Your task to perform on an android device: Toggle the flashlight Image 0: 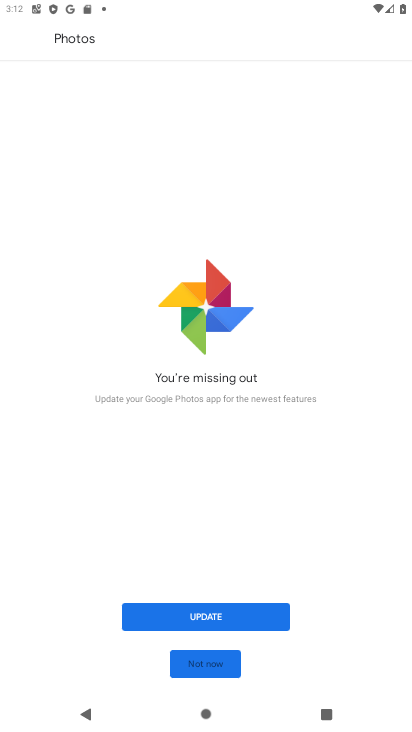
Step 0: press home button
Your task to perform on an android device: Toggle the flashlight Image 1: 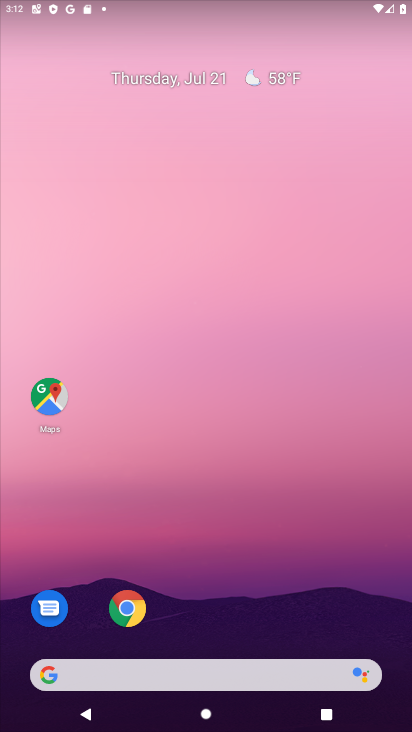
Step 1: drag from (283, 5) to (217, 526)
Your task to perform on an android device: Toggle the flashlight Image 2: 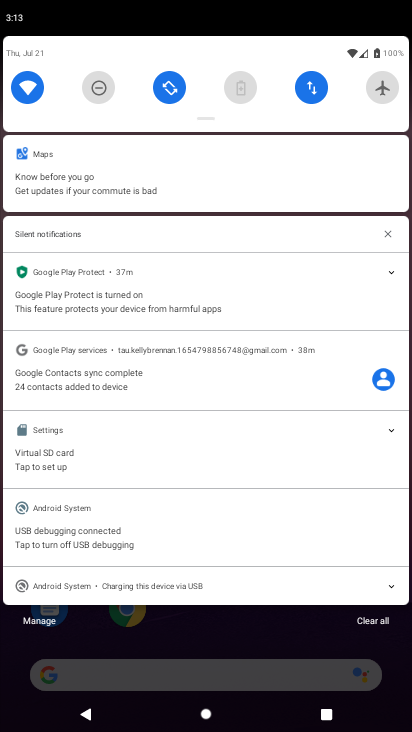
Step 2: click (202, 637)
Your task to perform on an android device: Toggle the flashlight Image 3: 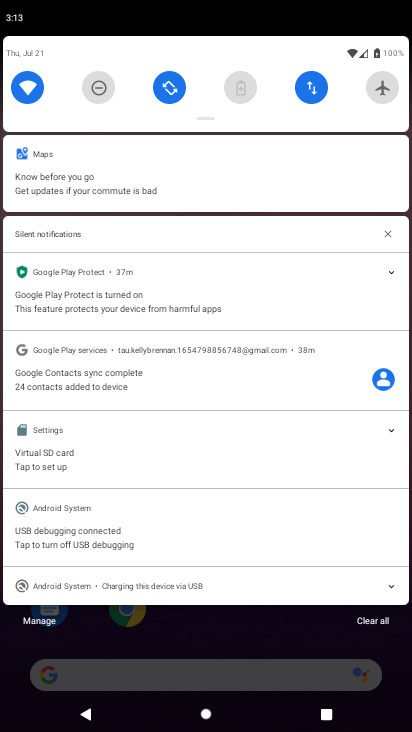
Step 3: click (357, 626)
Your task to perform on an android device: Toggle the flashlight Image 4: 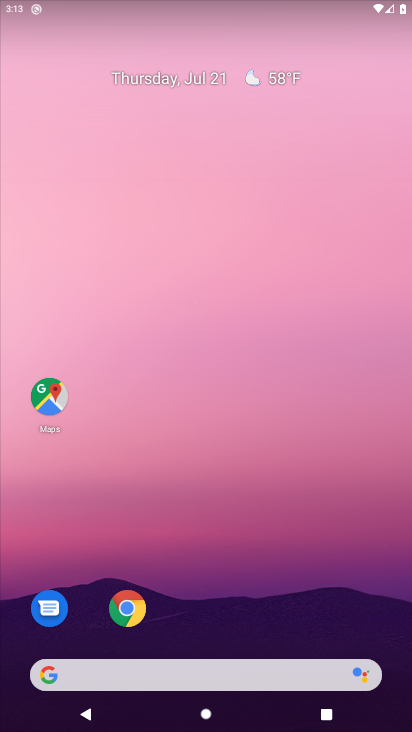
Step 4: drag from (206, 624) to (259, 20)
Your task to perform on an android device: Toggle the flashlight Image 5: 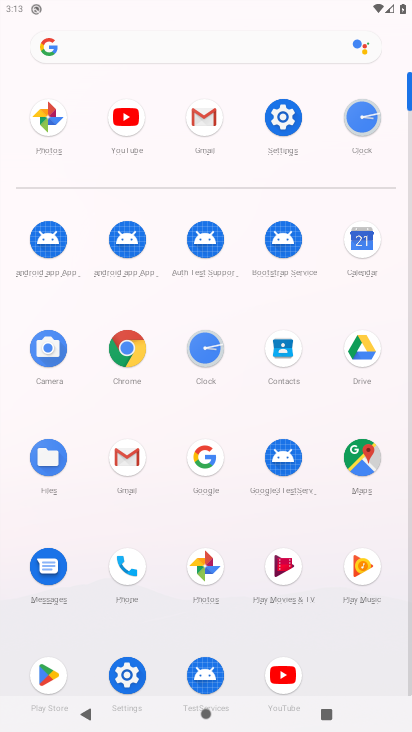
Step 5: click (281, 114)
Your task to perform on an android device: Toggle the flashlight Image 6: 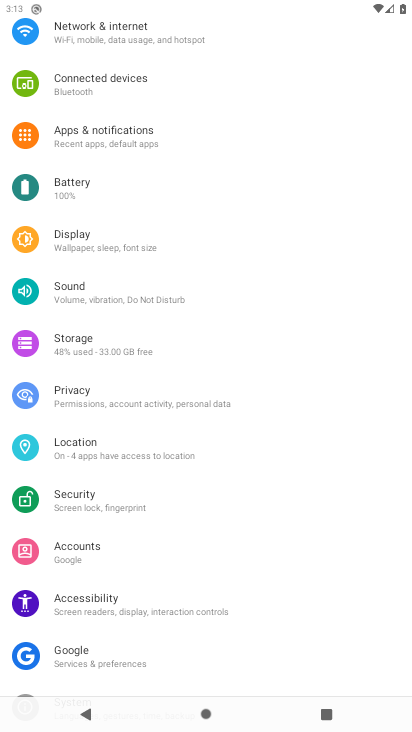
Step 6: drag from (168, 61) to (160, 599)
Your task to perform on an android device: Toggle the flashlight Image 7: 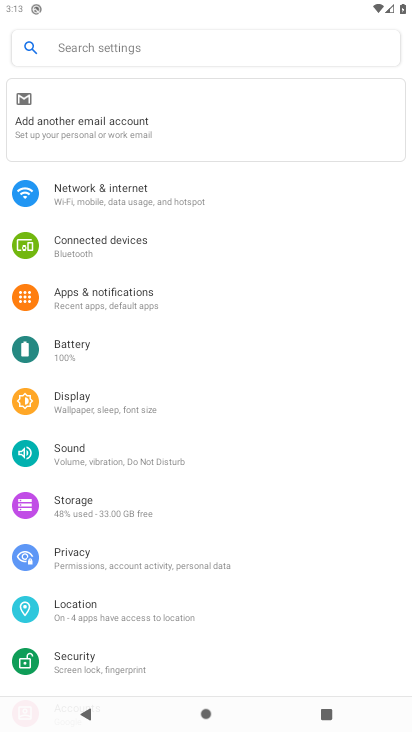
Step 7: click (135, 37)
Your task to perform on an android device: Toggle the flashlight Image 8: 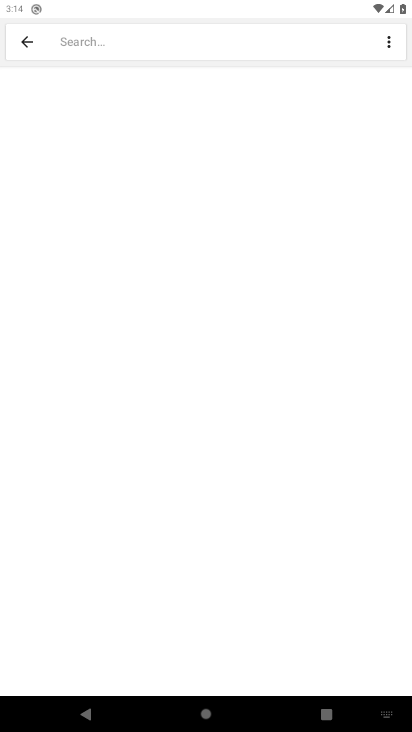
Step 8: type "flashlight"
Your task to perform on an android device: Toggle the flashlight Image 9: 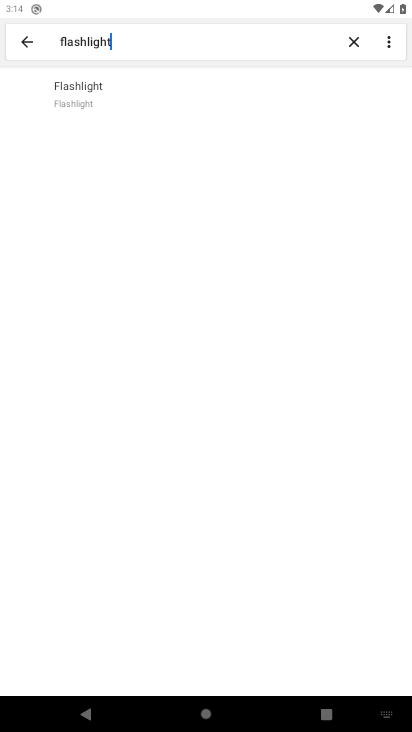
Step 9: click (101, 98)
Your task to perform on an android device: Toggle the flashlight Image 10: 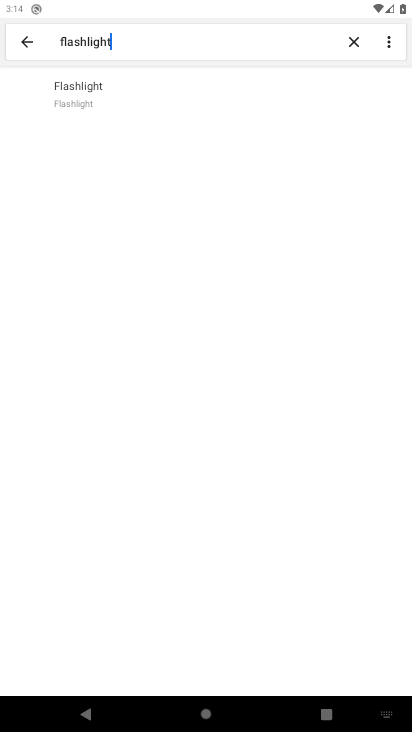
Step 10: task complete